Your task to perform on an android device: Go to Amazon Image 0: 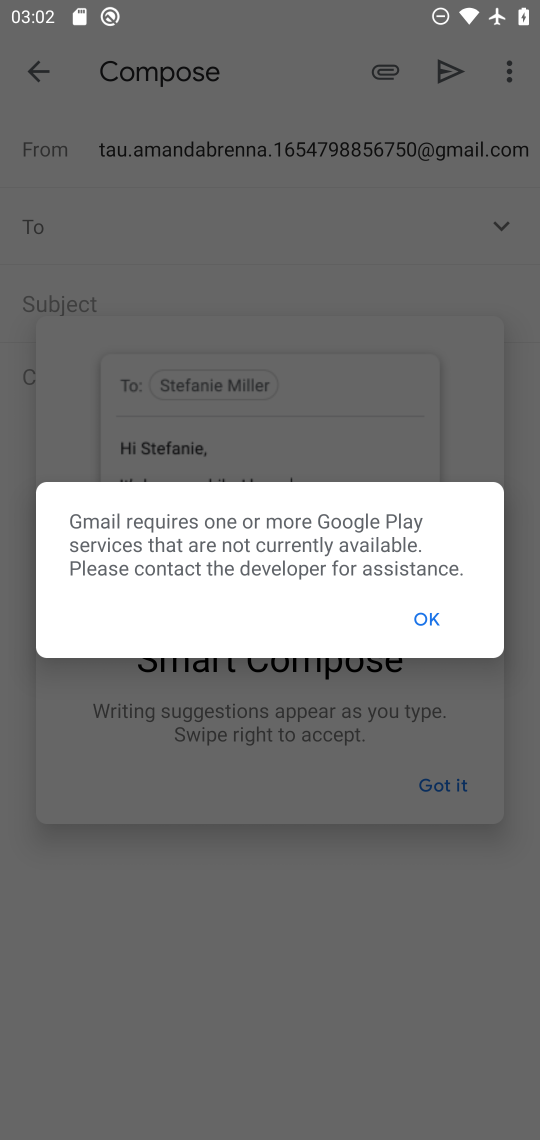
Step 0: press home button
Your task to perform on an android device: Go to Amazon Image 1: 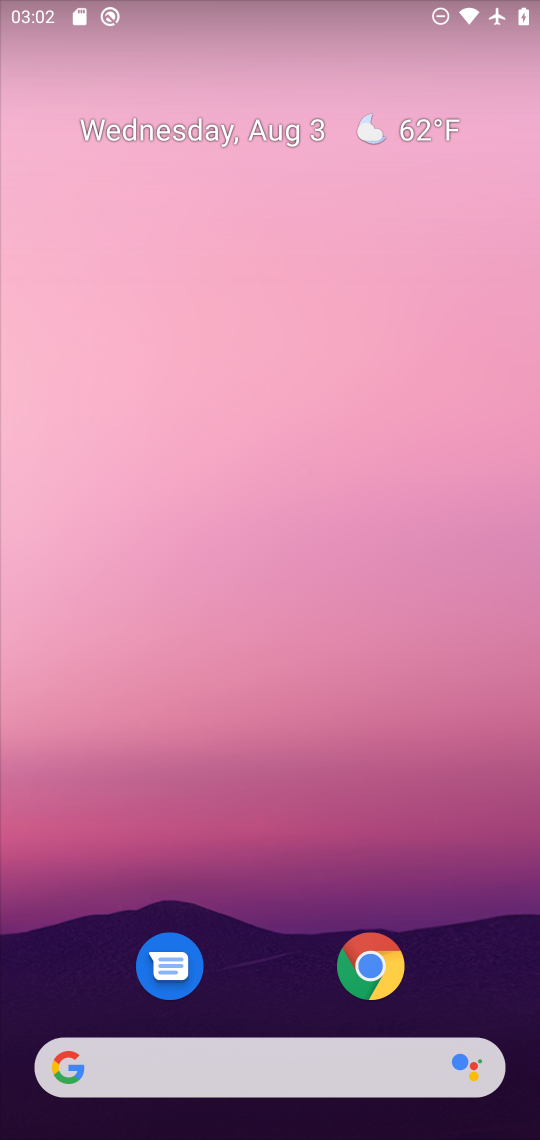
Step 1: click (376, 964)
Your task to perform on an android device: Go to Amazon Image 2: 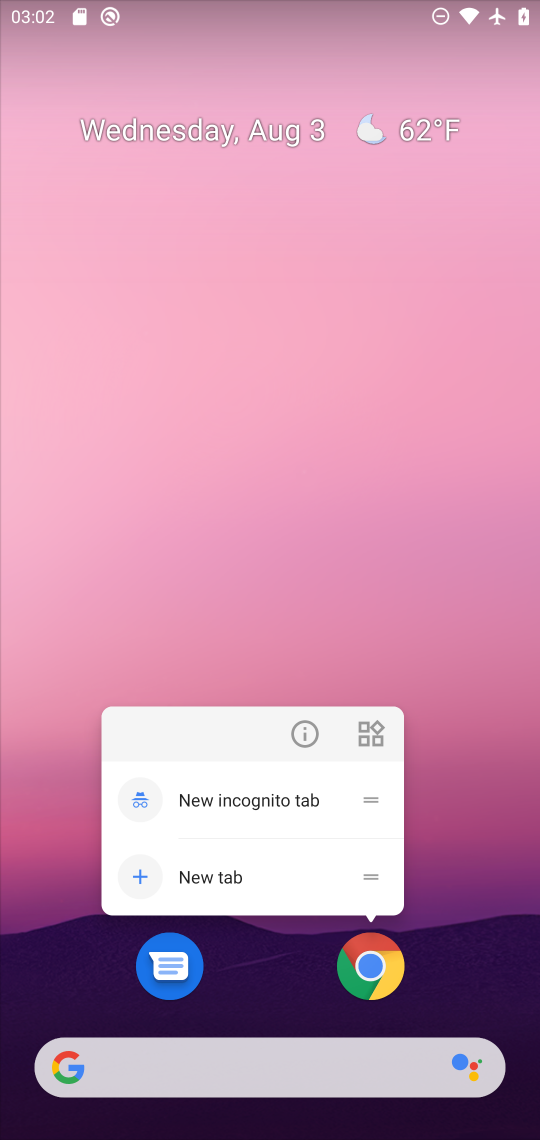
Step 2: click (376, 964)
Your task to perform on an android device: Go to Amazon Image 3: 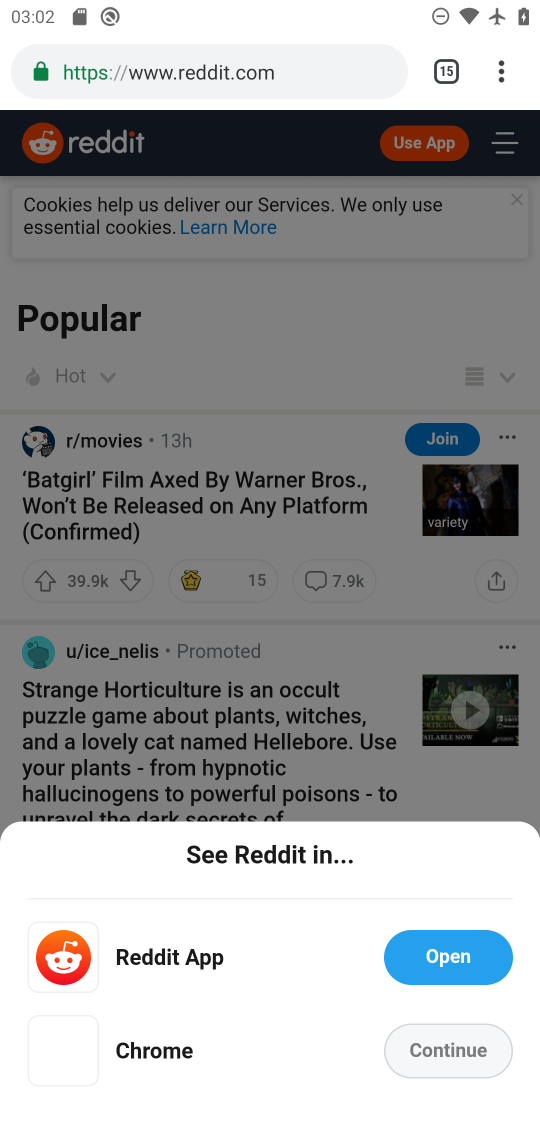
Step 3: click (446, 67)
Your task to perform on an android device: Go to Amazon Image 4: 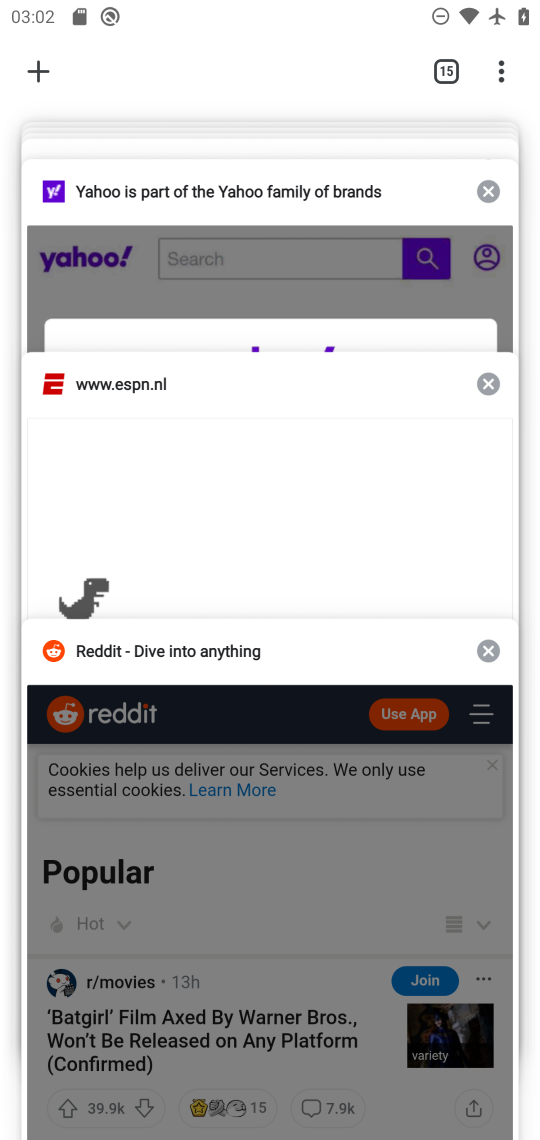
Step 4: click (40, 72)
Your task to perform on an android device: Go to Amazon Image 5: 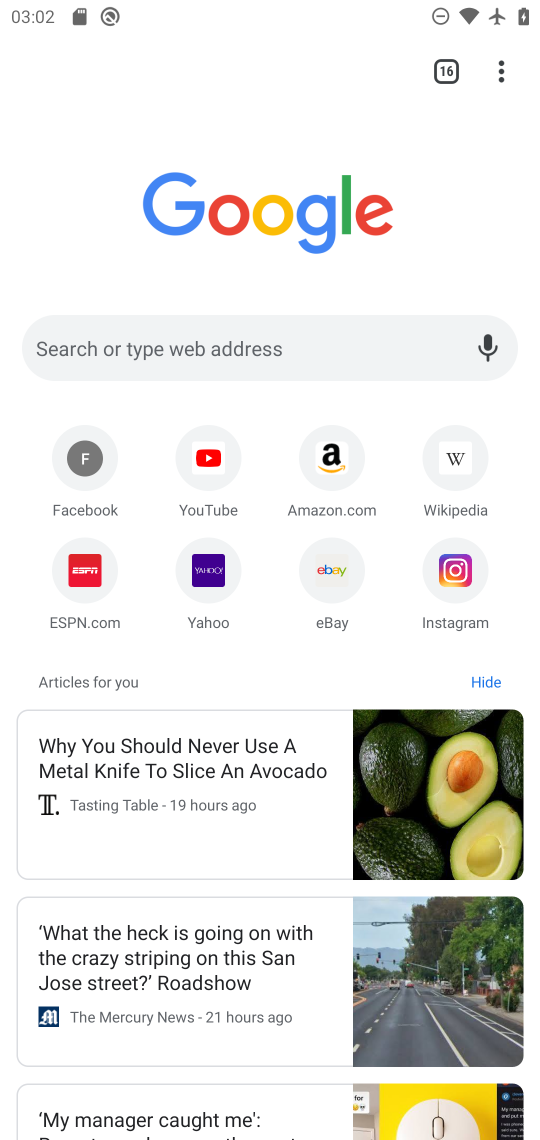
Step 5: click (329, 467)
Your task to perform on an android device: Go to Amazon Image 6: 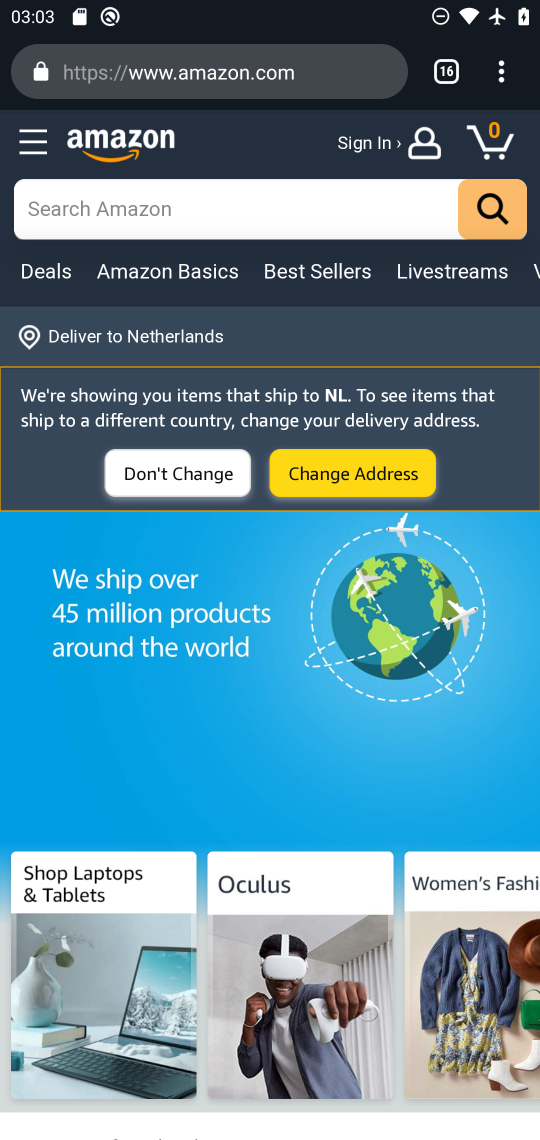
Step 6: task complete